Your task to perform on an android device: turn pop-ups on in chrome Image 0: 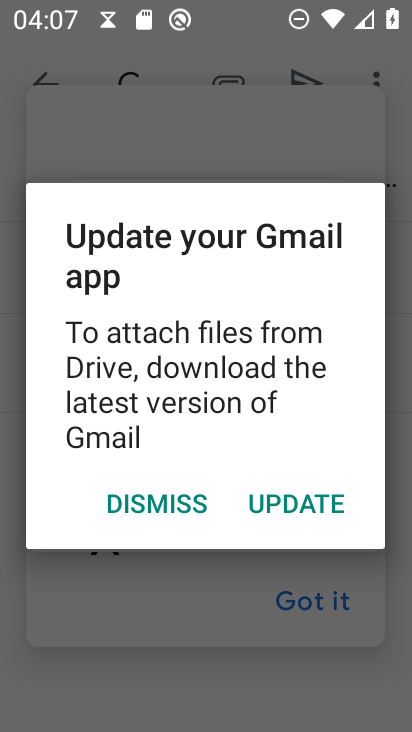
Step 0: press home button
Your task to perform on an android device: turn pop-ups on in chrome Image 1: 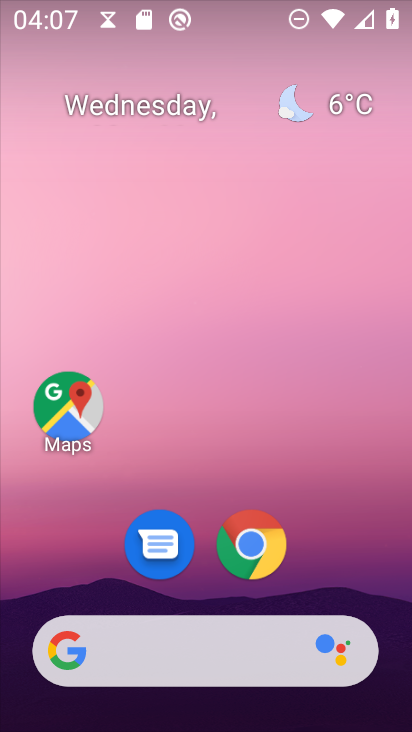
Step 1: click (254, 548)
Your task to perform on an android device: turn pop-ups on in chrome Image 2: 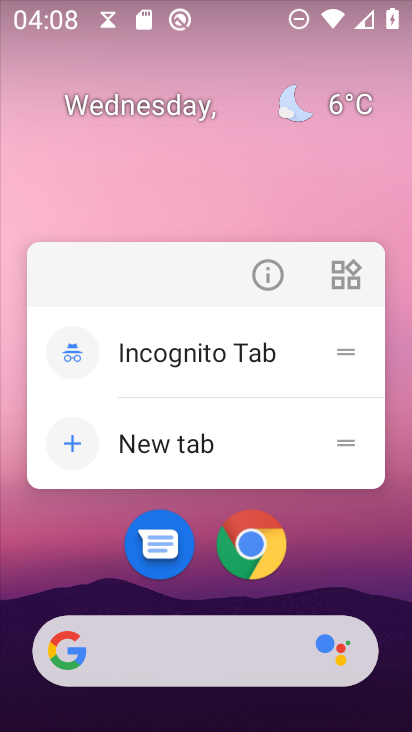
Step 2: click (254, 548)
Your task to perform on an android device: turn pop-ups on in chrome Image 3: 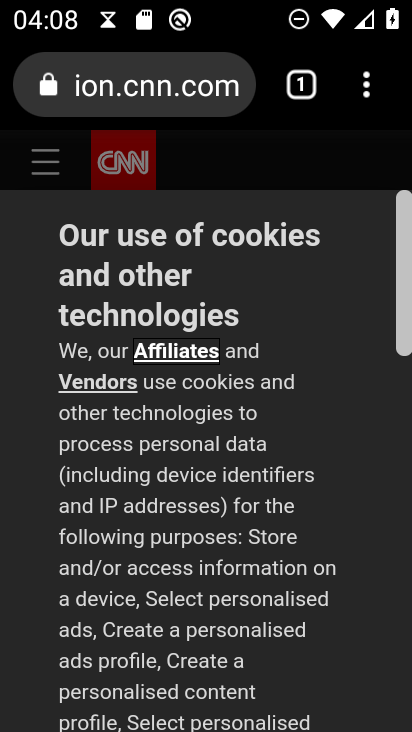
Step 3: click (365, 94)
Your task to perform on an android device: turn pop-ups on in chrome Image 4: 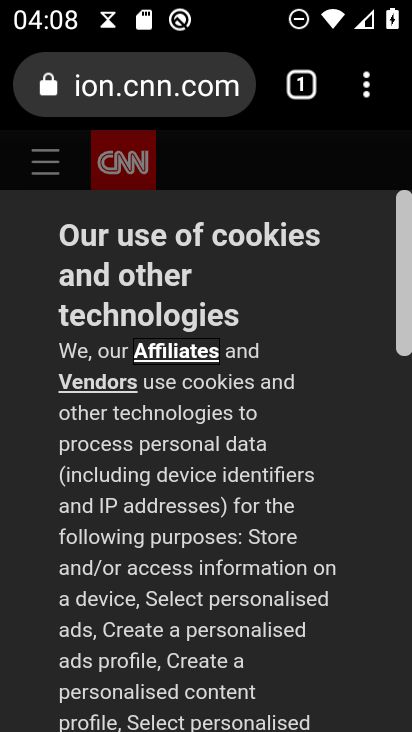
Step 4: click (367, 99)
Your task to perform on an android device: turn pop-ups on in chrome Image 5: 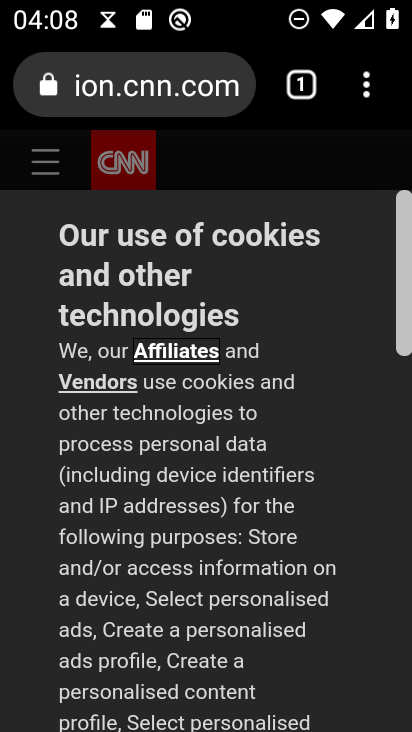
Step 5: click (366, 88)
Your task to perform on an android device: turn pop-ups on in chrome Image 6: 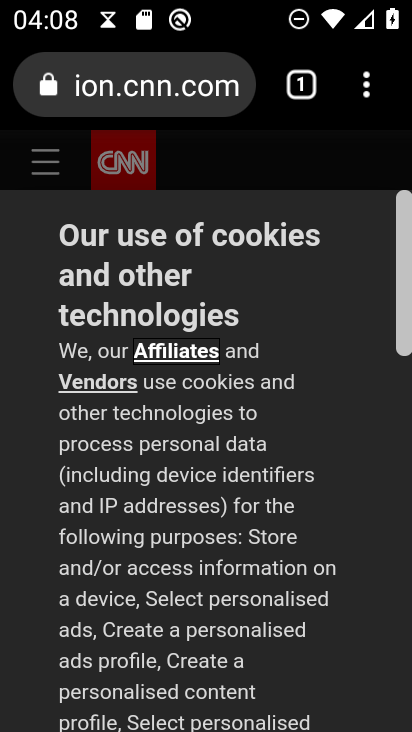
Step 6: click (366, 88)
Your task to perform on an android device: turn pop-ups on in chrome Image 7: 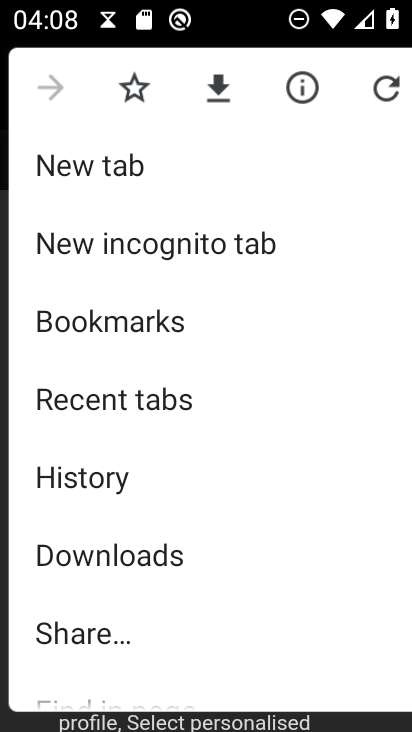
Step 7: drag from (218, 617) to (203, 303)
Your task to perform on an android device: turn pop-ups on in chrome Image 8: 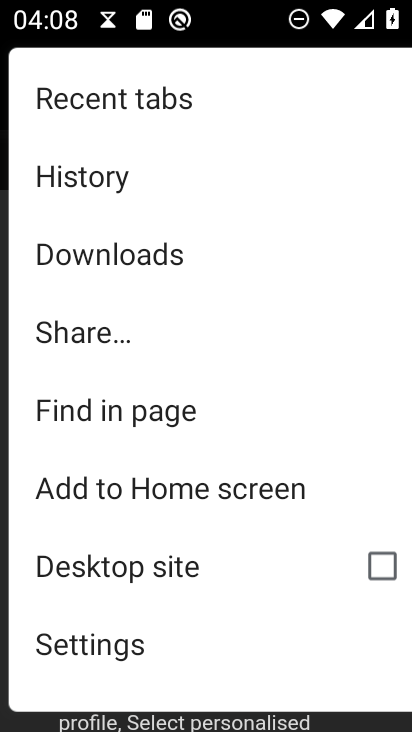
Step 8: click (192, 639)
Your task to perform on an android device: turn pop-ups on in chrome Image 9: 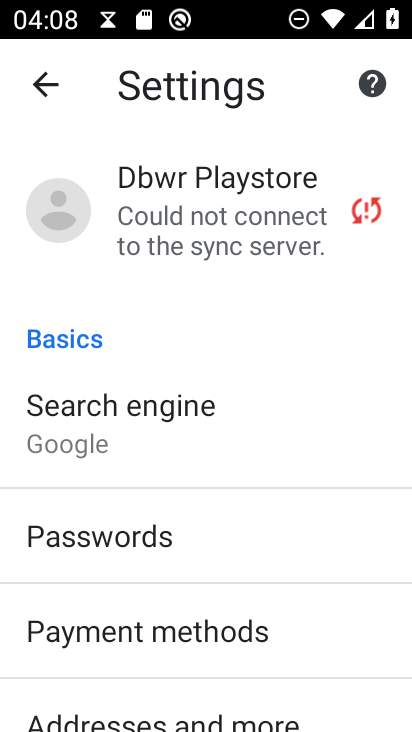
Step 9: drag from (255, 703) to (253, 254)
Your task to perform on an android device: turn pop-ups on in chrome Image 10: 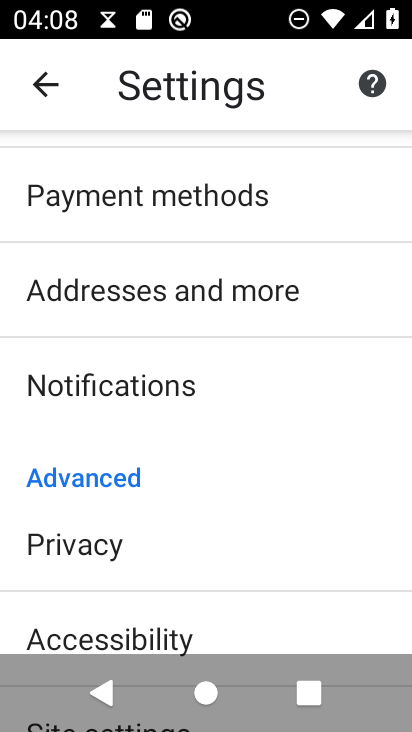
Step 10: drag from (175, 572) to (249, 210)
Your task to perform on an android device: turn pop-ups on in chrome Image 11: 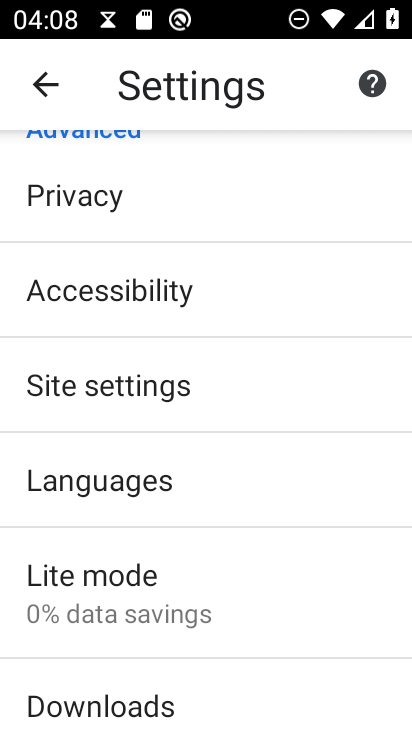
Step 11: click (147, 376)
Your task to perform on an android device: turn pop-ups on in chrome Image 12: 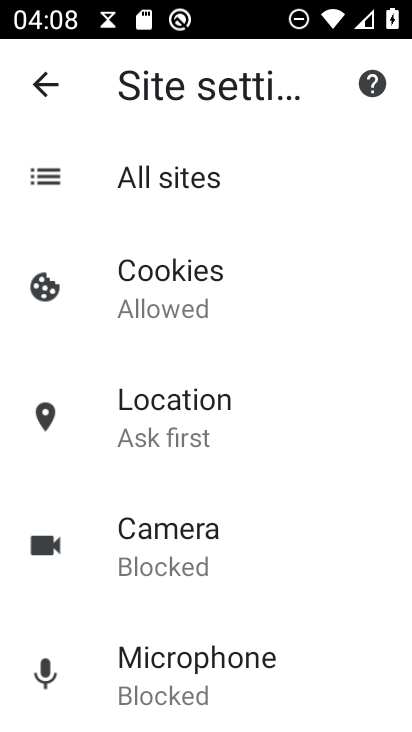
Step 12: drag from (189, 593) to (241, 183)
Your task to perform on an android device: turn pop-ups on in chrome Image 13: 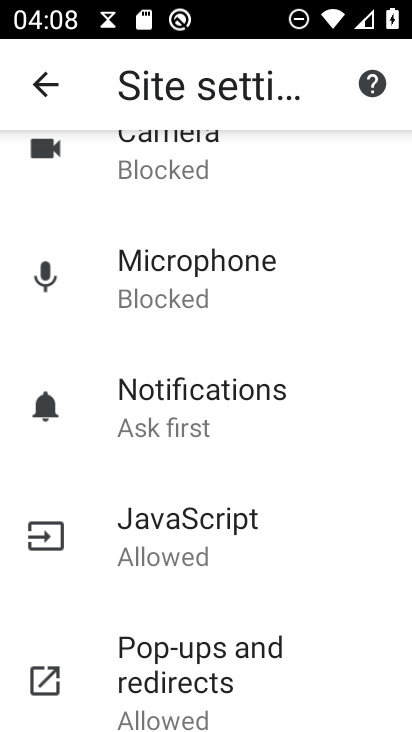
Step 13: click (213, 662)
Your task to perform on an android device: turn pop-ups on in chrome Image 14: 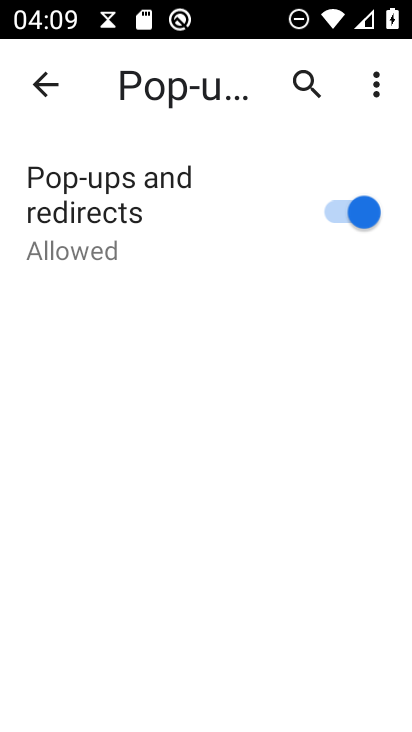
Step 14: task complete